Your task to perform on an android device: find photos in the google photos app Image 0: 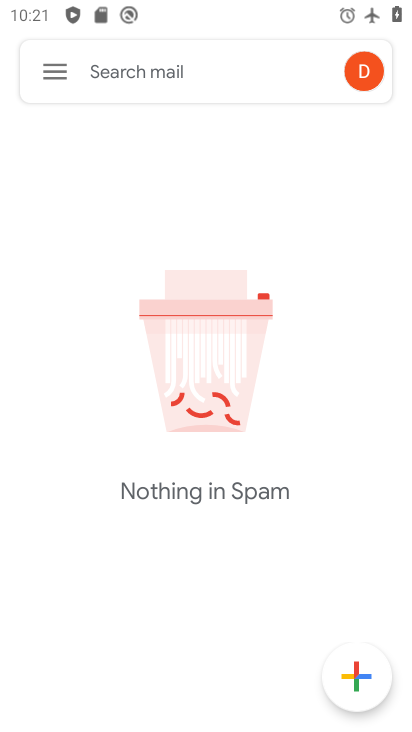
Step 0: press home button
Your task to perform on an android device: find photos in the google photos app Image 1: 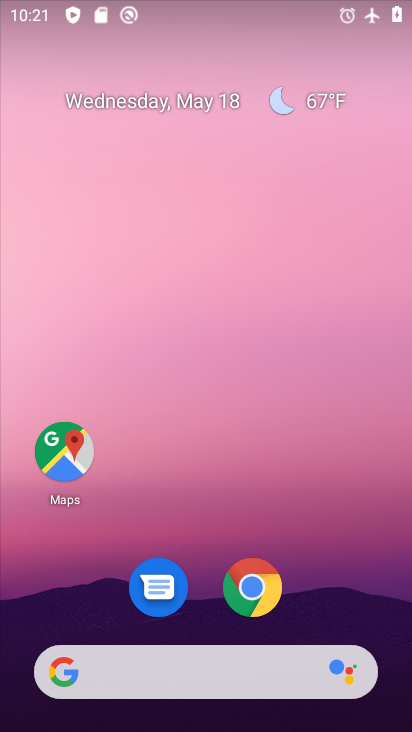
Step 1: drag from (347, 573) to (326, 135)
Your task to perform on an android device: find photos in the google photos app Image 2: 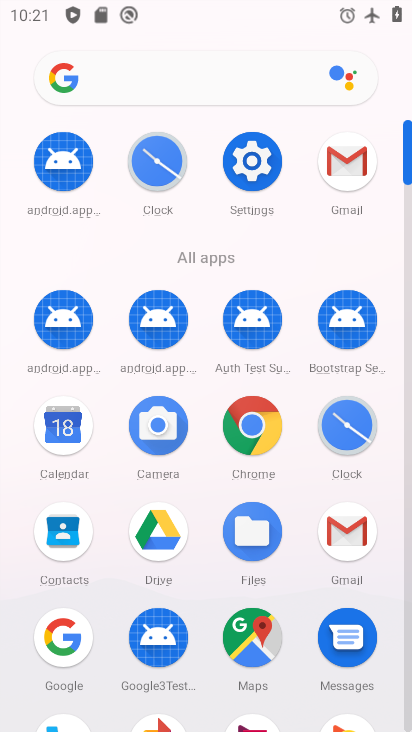
Step 2: drag from (171, 522) to (159, 238)
Your task to perform on an android device: find photos in the google photos app Image 3: 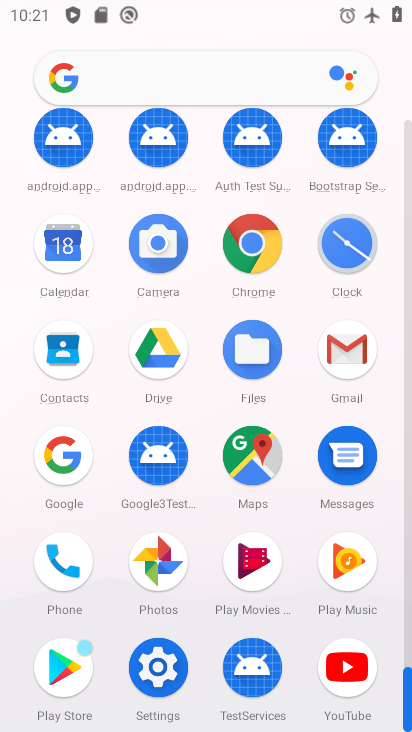
Step 3: click (161, 575)
Your task to perform on an android device: find photos in the google photos app Image 4: 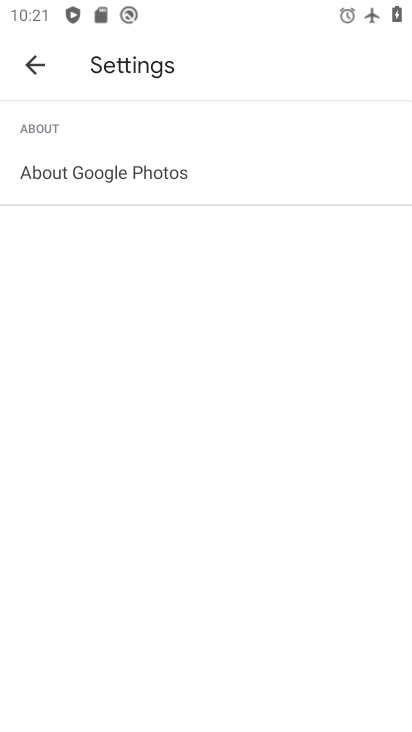
Step 4: press back button
Your task to perform on an android device: find photos in the google photos app Image 5: 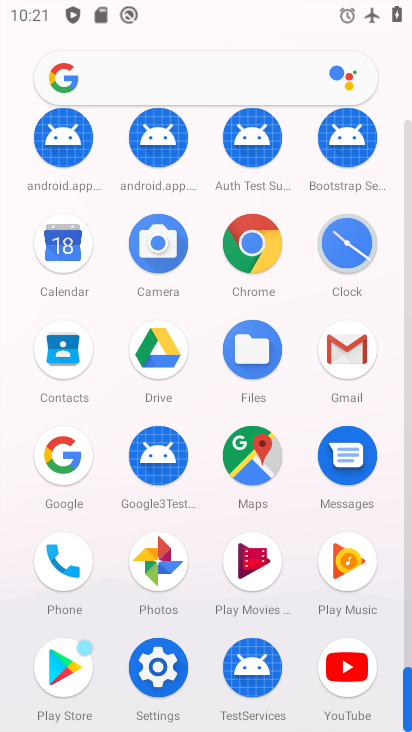
Step 5: click (138, 553)
Your task to perform on an android device: find photos in the google photos app Image 6: 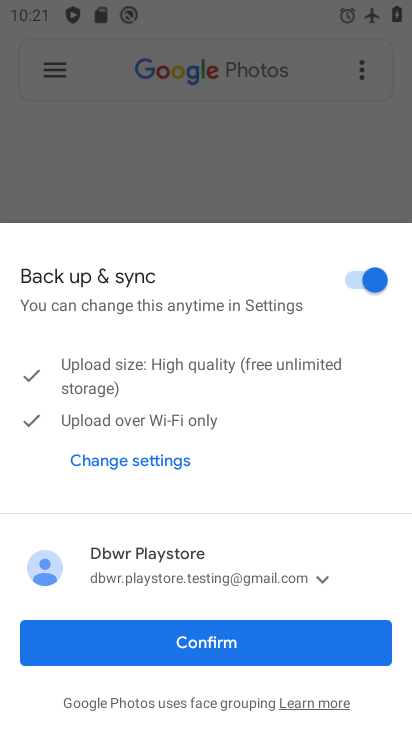
Step 6: click (200, 649)
Your task to perform on an android device: find photos in the google photos app Image 7: 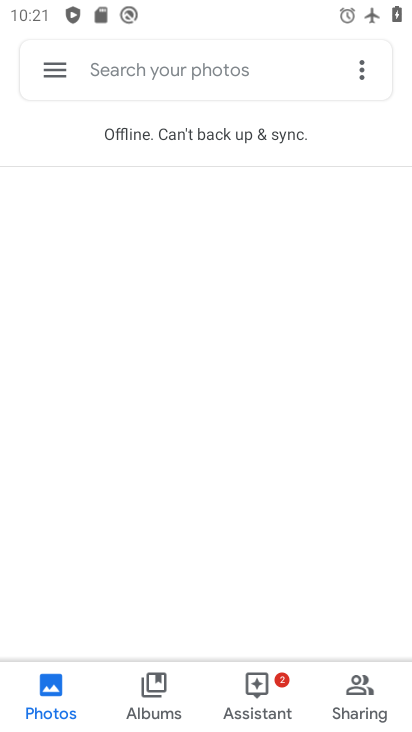
Step 7: drag from (260, 3) to (274, 438)
Your task to perform on an android device: find photos in the google photos app Image 8: 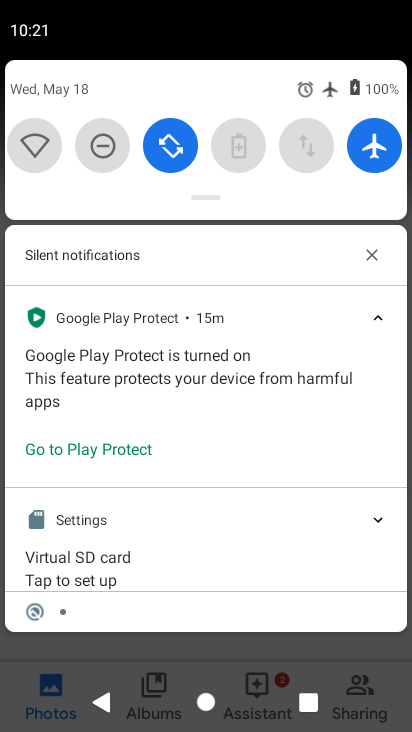
Step 8: click (369, 142)
Your task to perform on an android device: find photos in the google photos app Image 9: 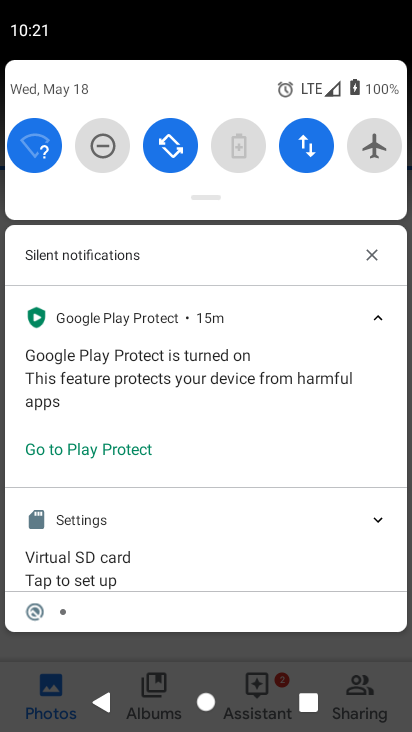
Step 9: press back button
Your task to perform on an android device: find photos in the google photos app Image 10: 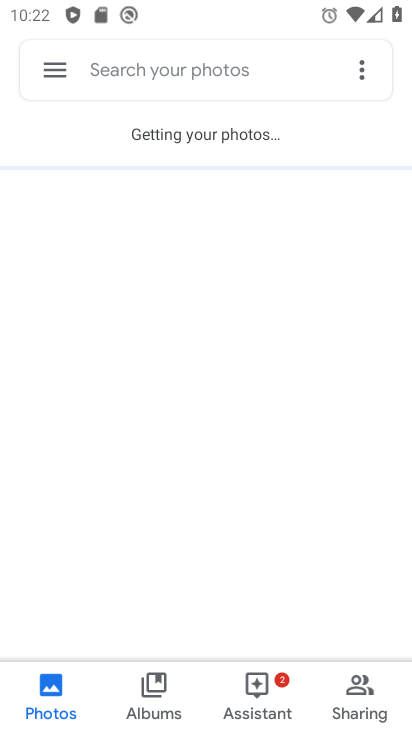
Step 10: drag from (235, 491) to (240, 250)
Your task to perform on an android device: find photos in the google photos app Image 11: 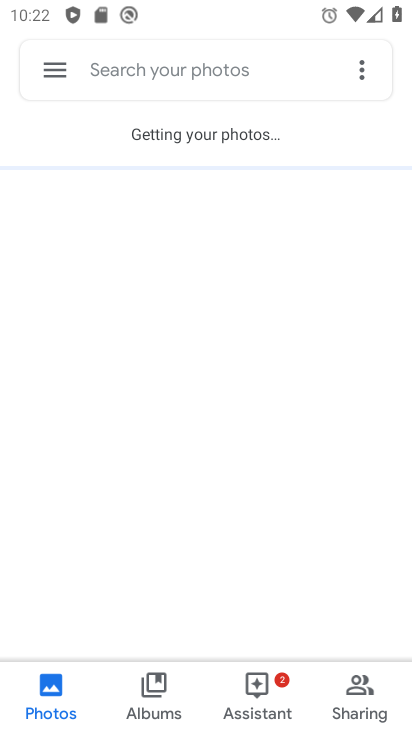
Step 11: click (151, 685)
Your task to perform on an android device: find photos in the google photos app Image 12: 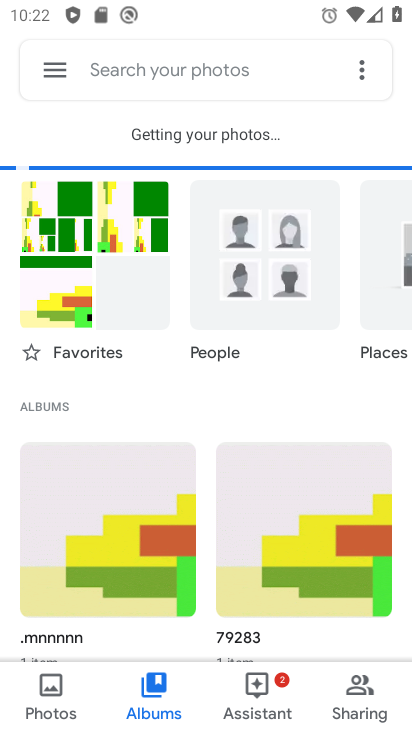
Step 12: click (25, 685)
Your task to perform on an android device: find photos in the google photos app Image 13: 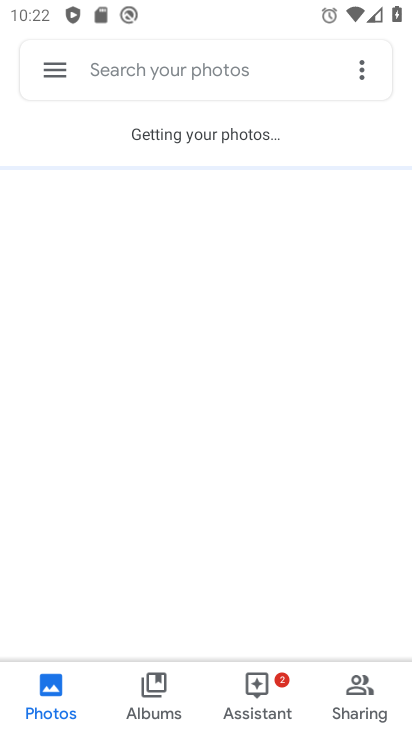
Step 13: task complete